Your task to perform on an android device: Go to wifi settings Image 0: 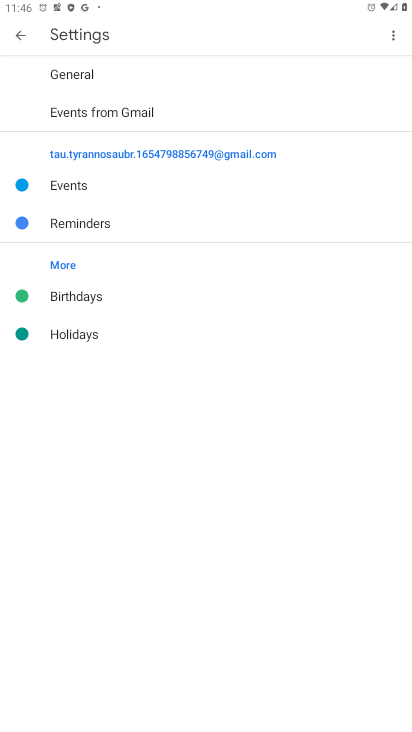
Step 0: press home button
Your task to perform on an android device: Go to wifi settings Image 1: 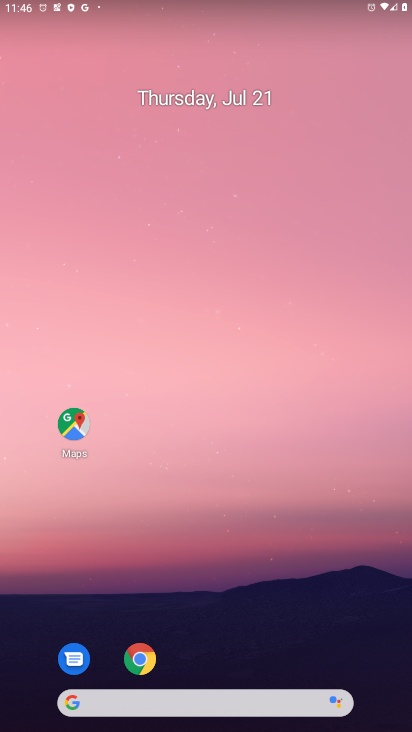
Step 1: drag from (202, 703) to (173, 14)
Your task to perform on an android device: Go to wifi settings Image 2: 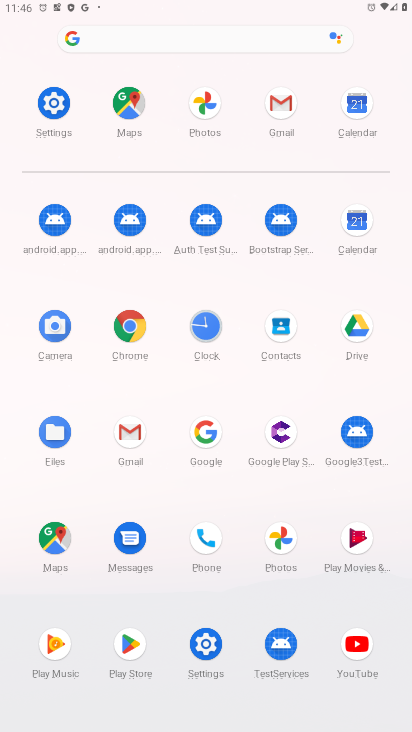
Step 2: click (55, 104)
Your task to perform on an android device: Go to wifi settings Image 3: 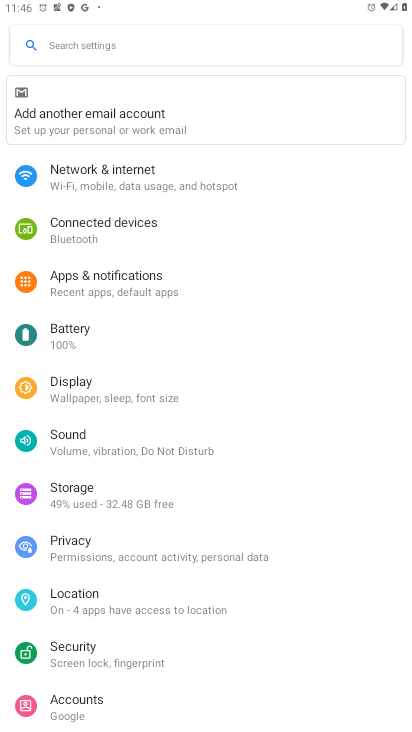
Step 3: click (102, 181)
Your task to perform on an android device: Go to wifi settings Image 4: 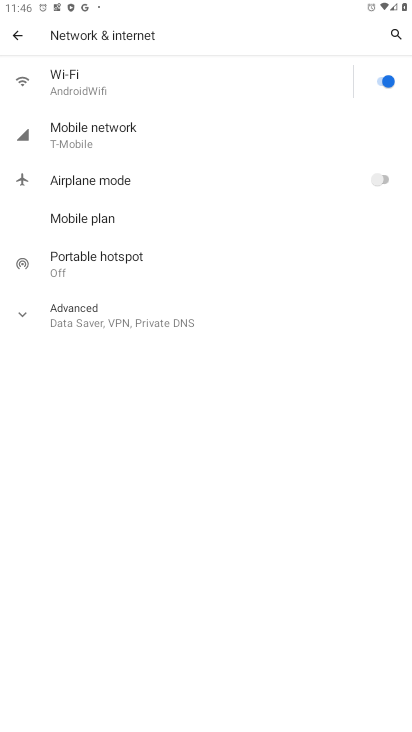
Step 4: click (72, 89)
Your task to perform on an android device: Go to wifi settings Image 5: 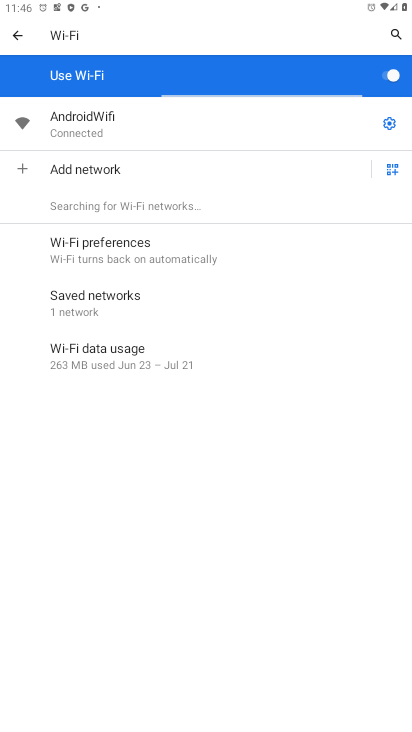
Step 5: click (387, 125)
Your task to perform on an android device: Go to wifi settings Image 6: 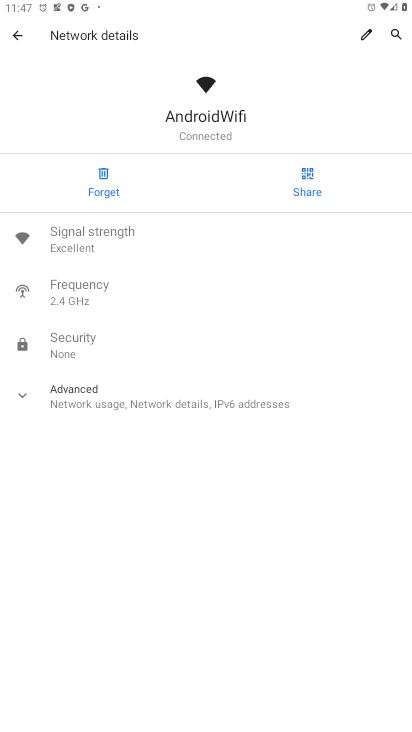
Step 6: task complete